Your task to perform on an android device: install app "Spotify: Music and Podcasts" Image 0: 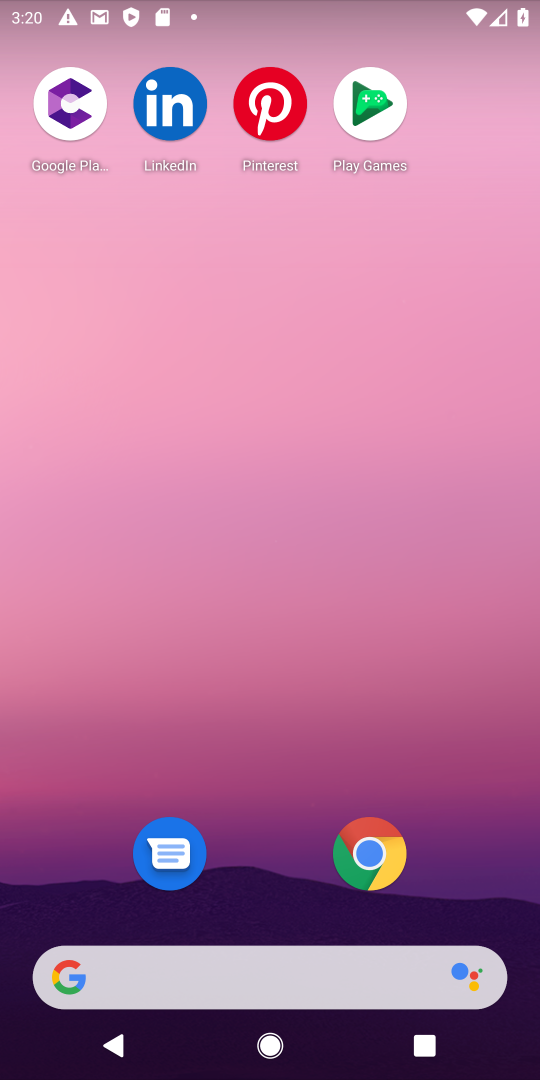
Step 0: drag from (308, 1017) to (311, 205)
Your task to perform on an android device: install app "Spotify: Music and Podcasts" Image 1: 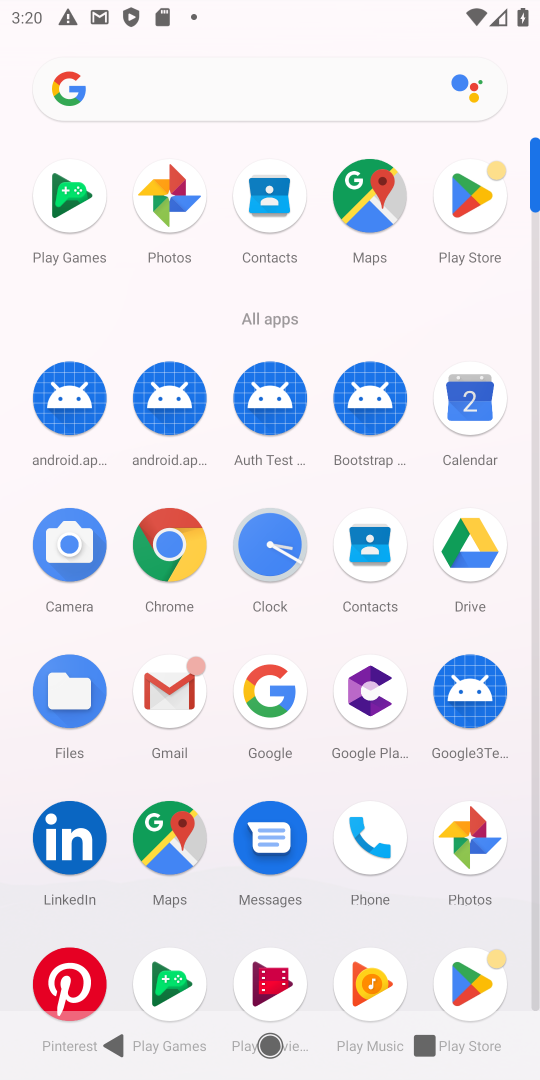
Step 1: click (463, 206)
Your task to perform on an android device: install app "Spotify: Music and Podcasts" Image 2: 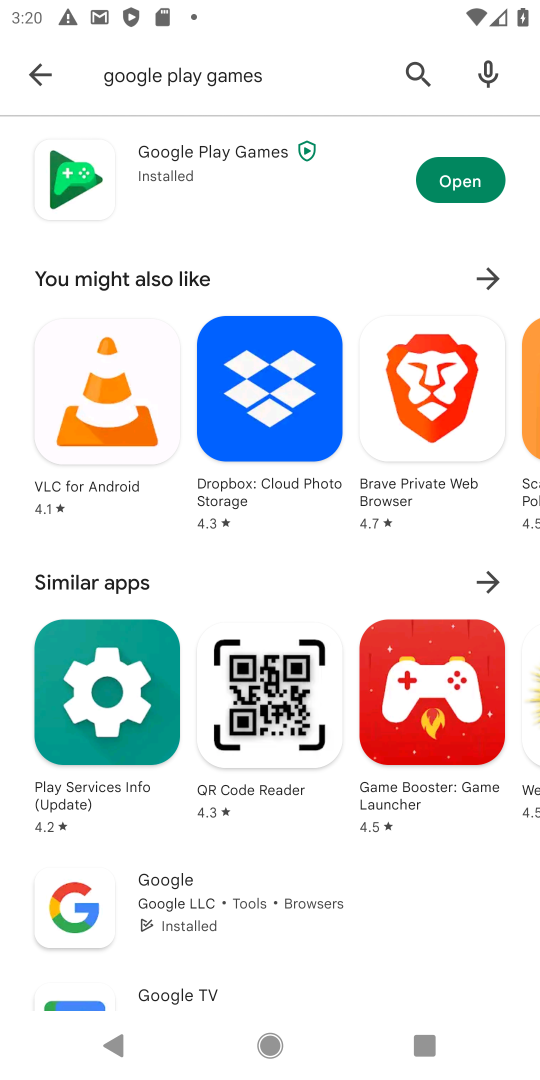
Step 2: click (414, 65)
Your task to perform on an android device: install app "Spotify: Music and Podcasts" Image 3: 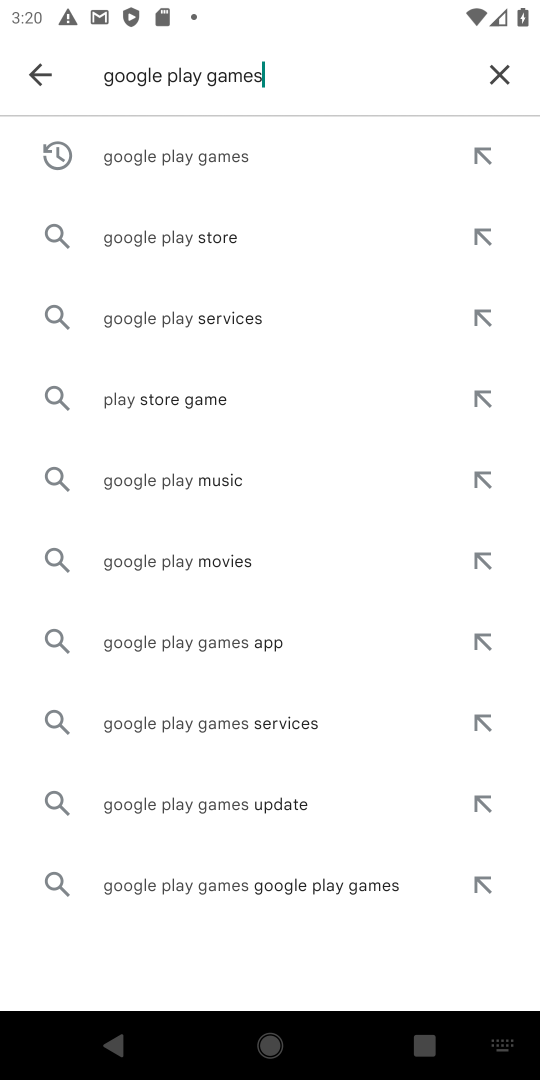
Step 3: click (502, 75)
Your task to perform on an android device: install app "Spotify: Music and Podcasts" Image 4: 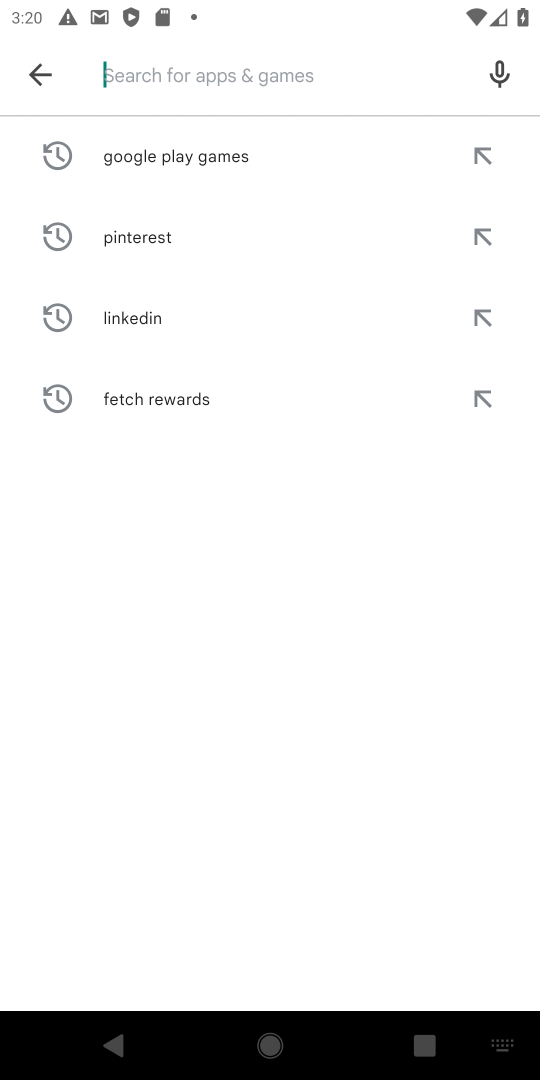
Step 4: type "Spotify: Music and Podcasts"
Your task to perform on an android device: install app "Spotify: Music and Podcasts" Image 5: 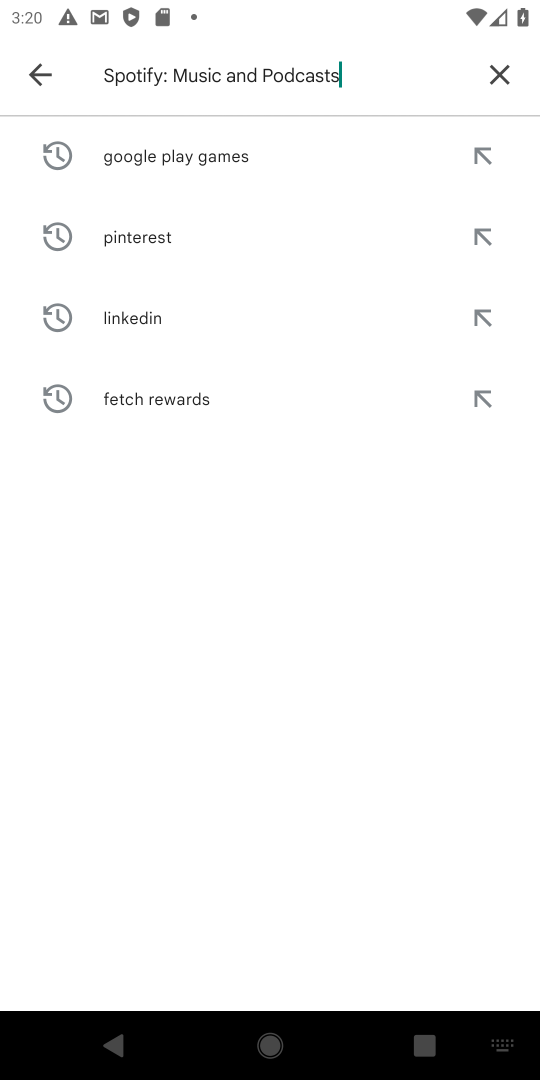
Step 5: type ""
Your task to perform on an android device: install app "Spotify: Music and Podcasts" Image 6: 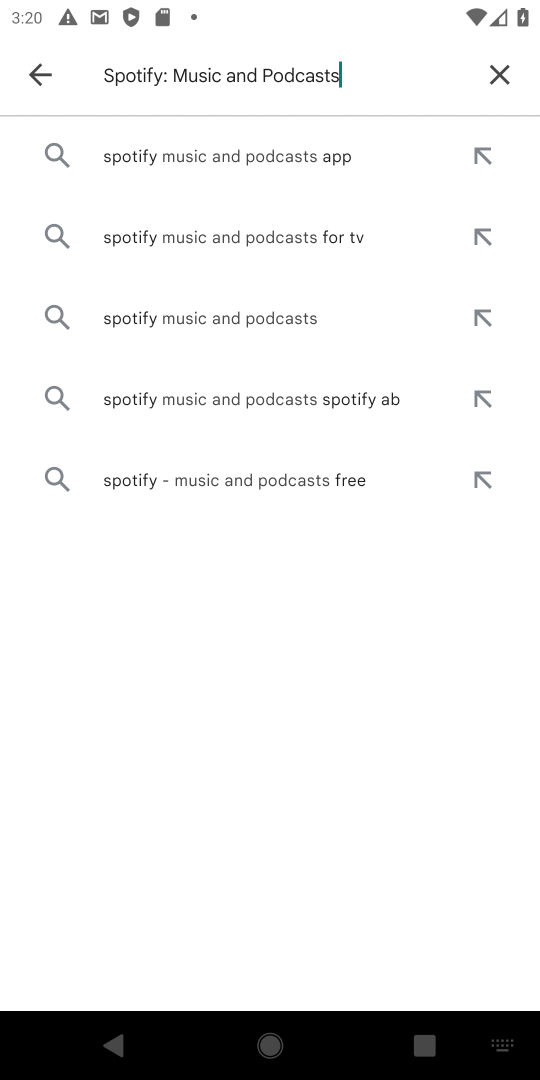
Step 6: click (180, 148)
Your task to perform on an android device: install app "Spotify: Music and Podcasts" Image 7: 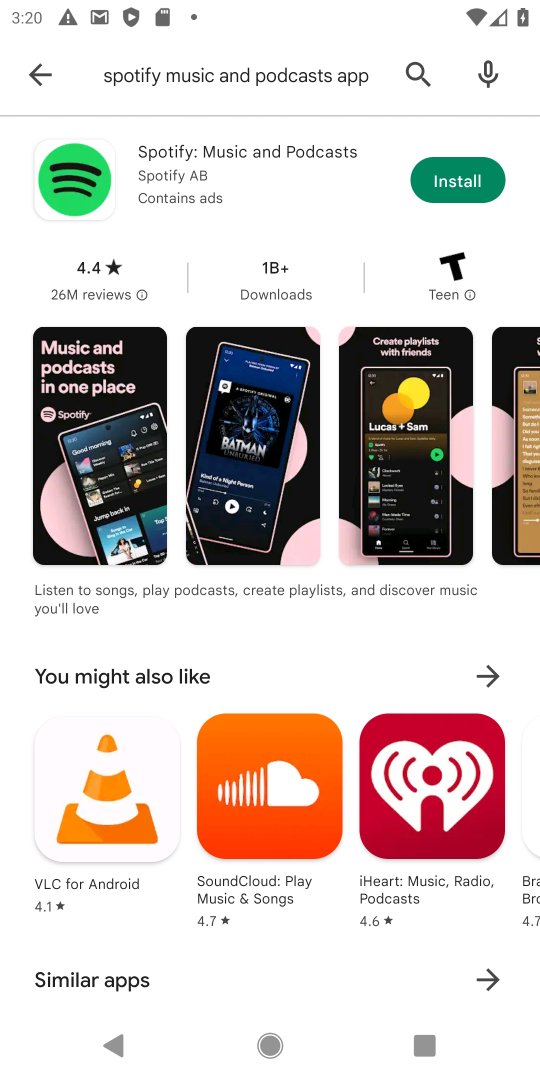
Step 7: click (469, 181)
Your task to perform on an android device: install app "Spotify: Music and Podcasts" Image 8: 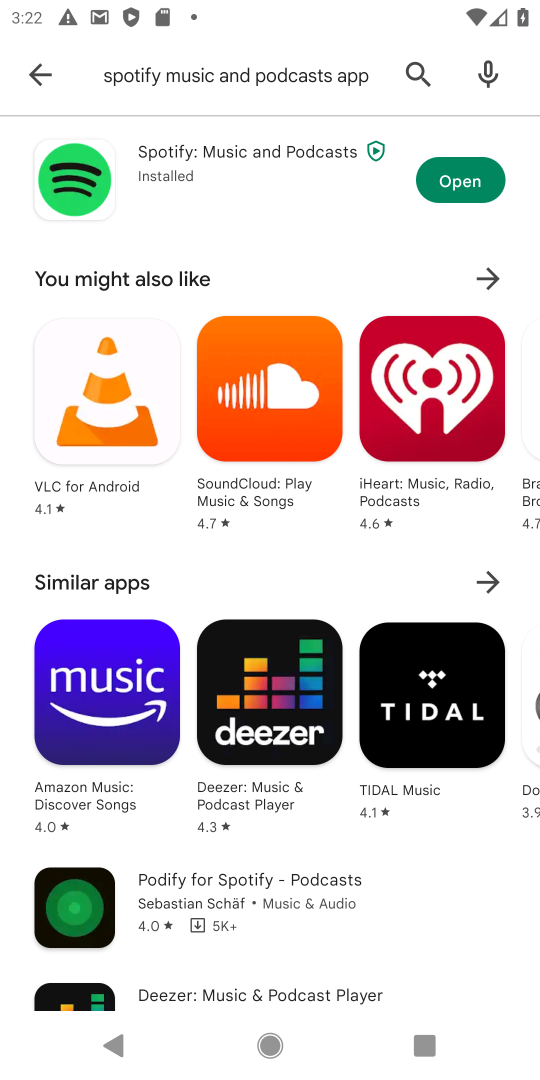
Step 8: task complete